Your task to perform on an android device: Open location settings Image 0: 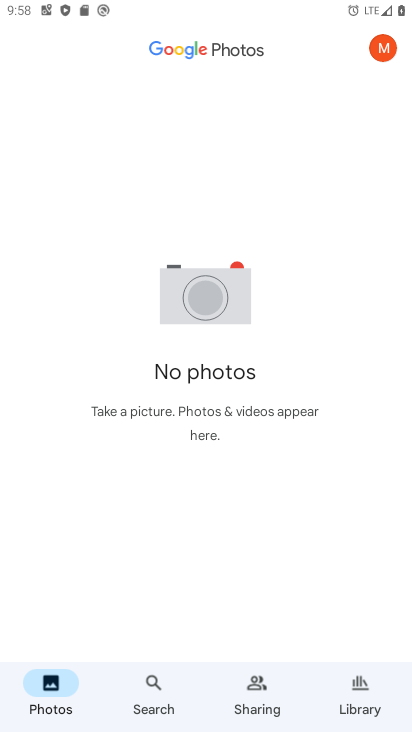
Step 0: press home button
Your task to perform on an android device: Open location settings Image 1: 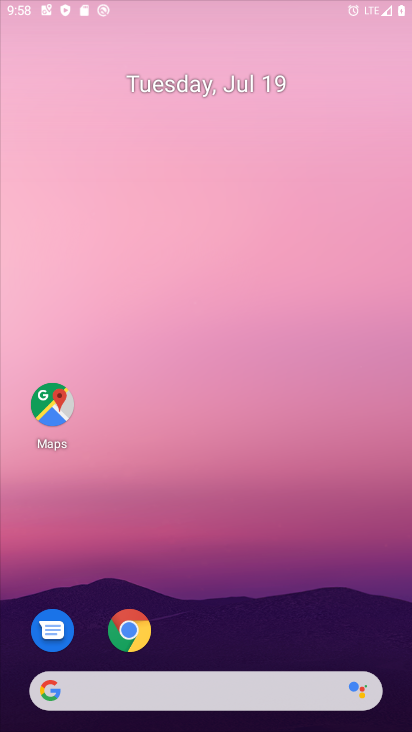
Step 1: drag from (217, 656) to (174, 38)
Your task to perform on an android device: Open location settings Image 2: 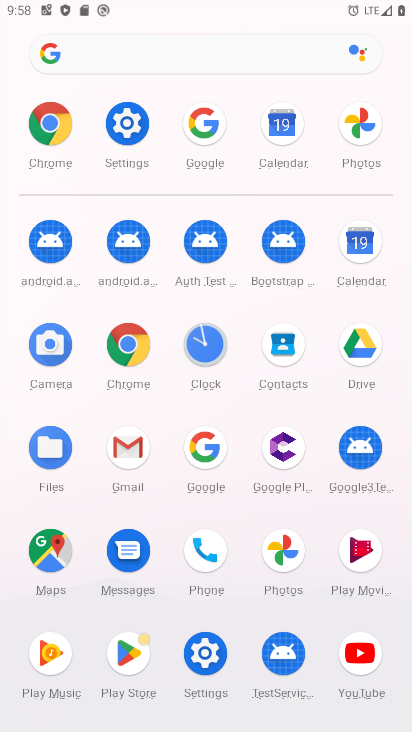
Step 2: click (123, 120)
Your task to perform on an android device: Open location settings Image 3: 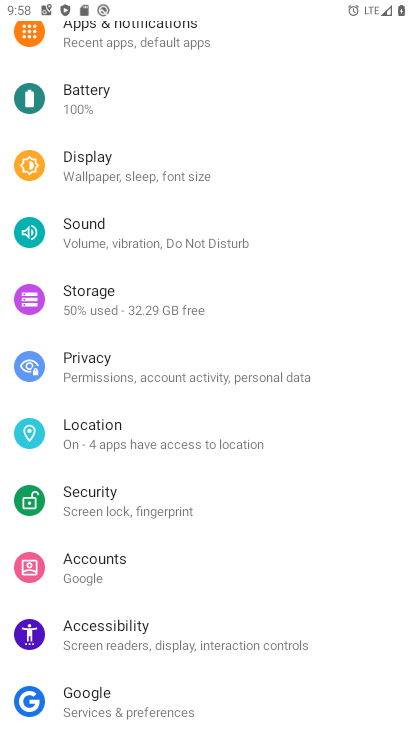
Step 3: click (117, 439)
Your task to perform on an android device: Open location settings Image 4: 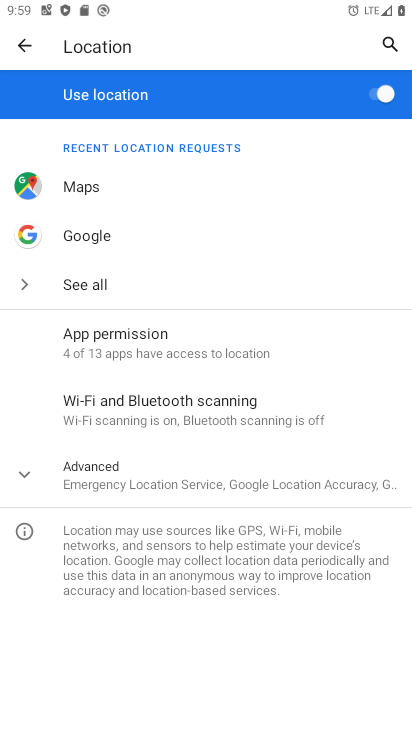
Step 4: task complete